Your task to perform on an android device: toggle translation in the chrome app Image 0: 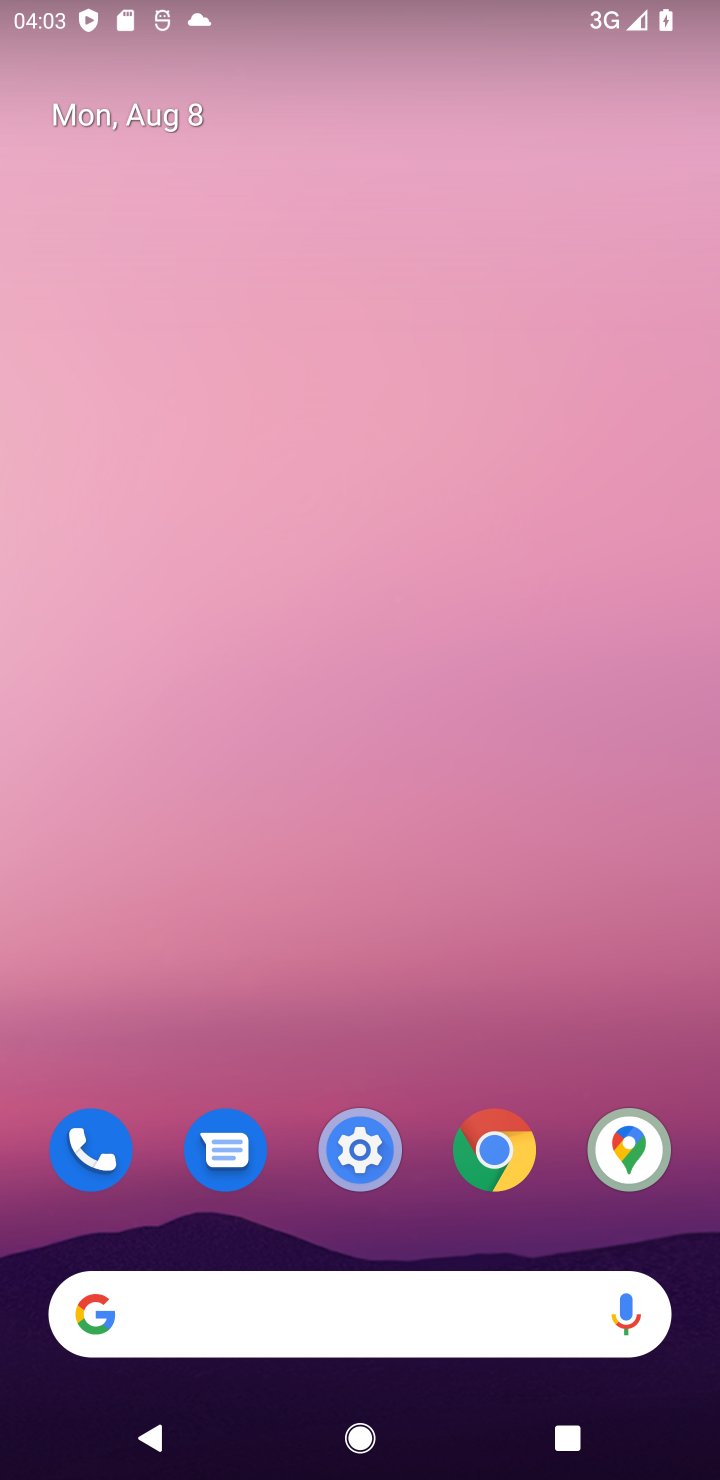
Step 0: click (518, 1159)
Your task to perform on an android device: toggle translation in the chrome app Image 1: 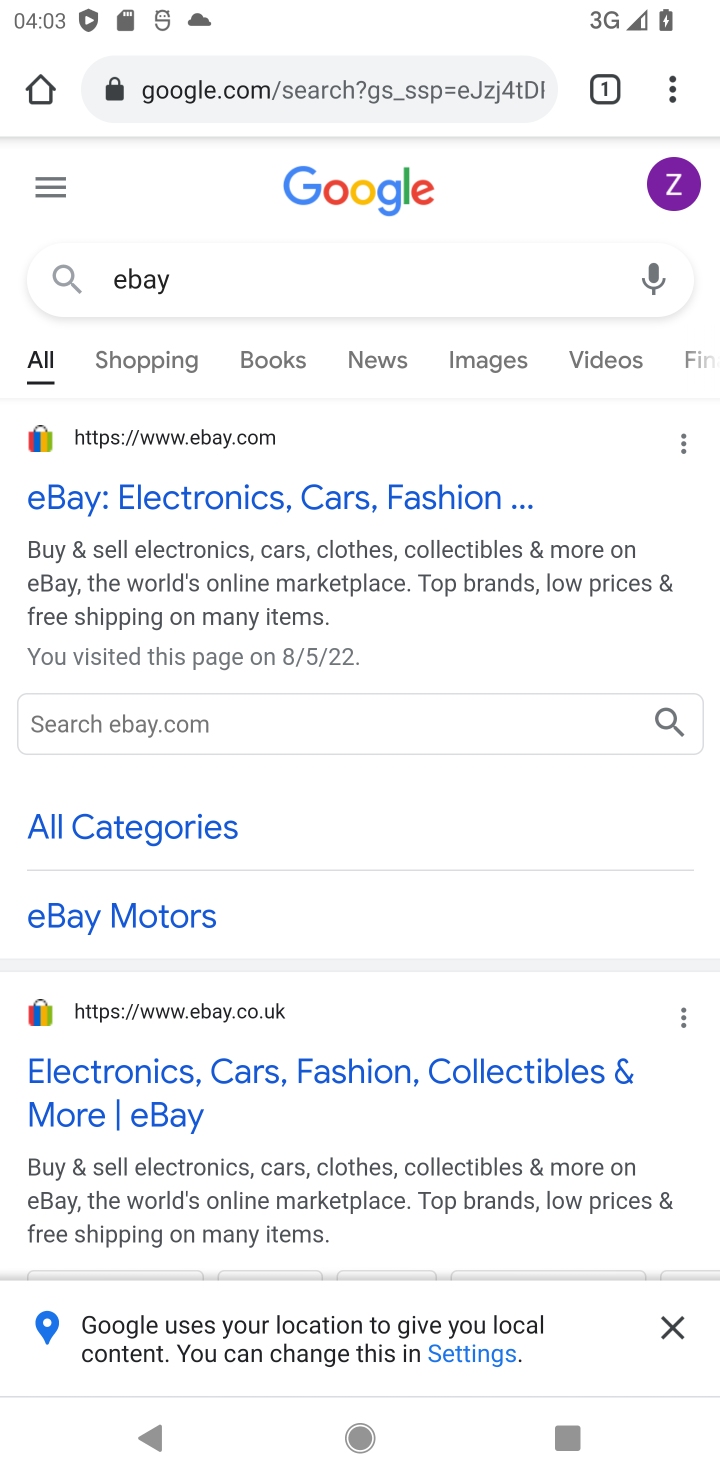
Step 1: click (678, 85)
Your task to perform on an android device: toggle translation in the chrome app Image 2: 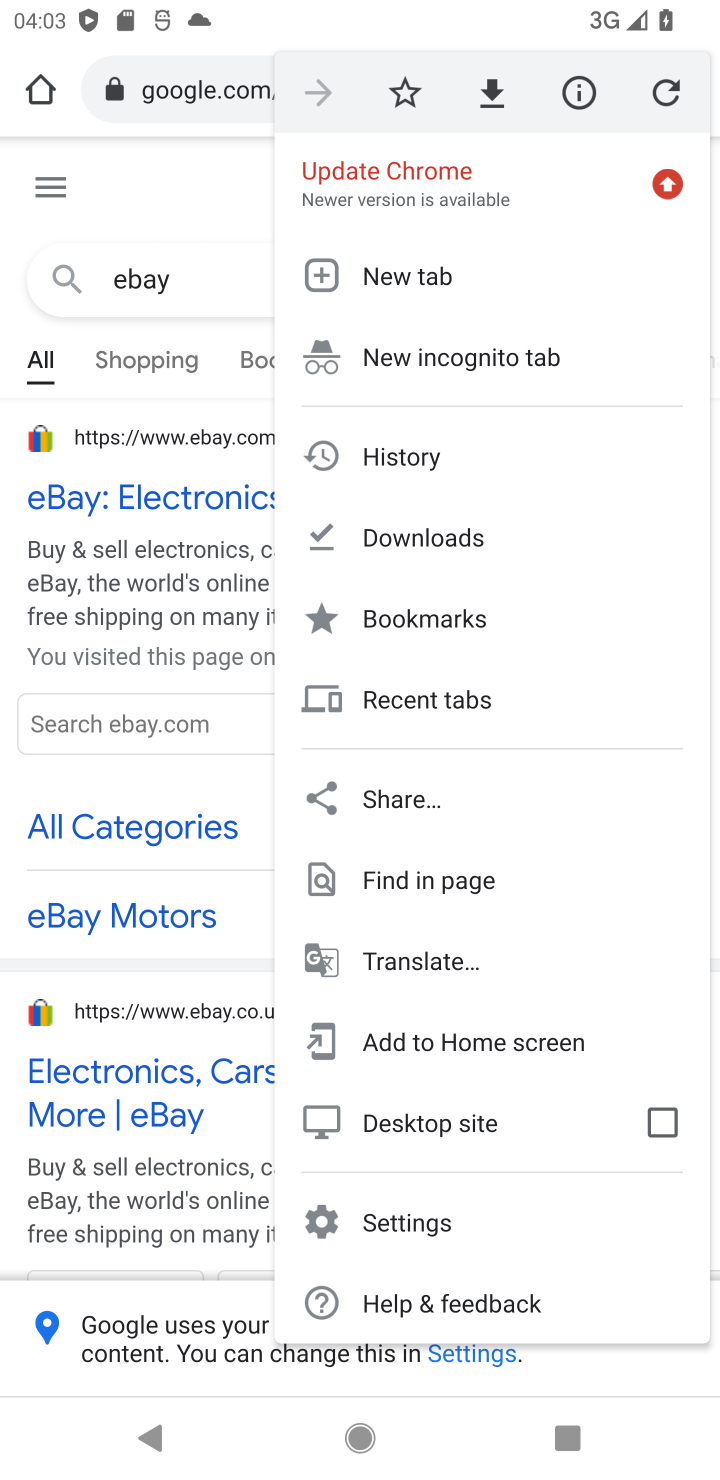
Step 2: click (423, 1228)
Your task to perform on an android device: toggle translation in the chrome app Image 3: 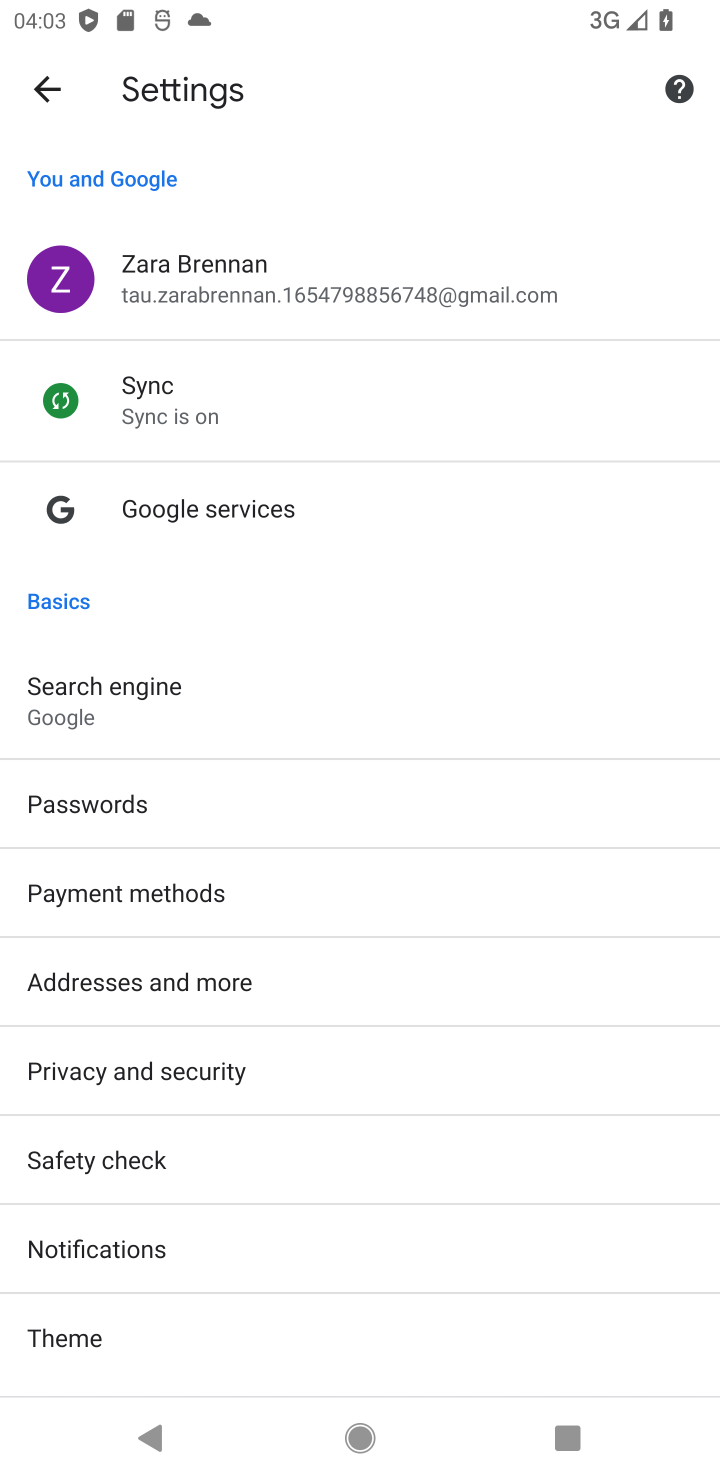
Step 3: click (45, 80)
Your task to perform on an android device: toggle translation in the chrome app Image 4: 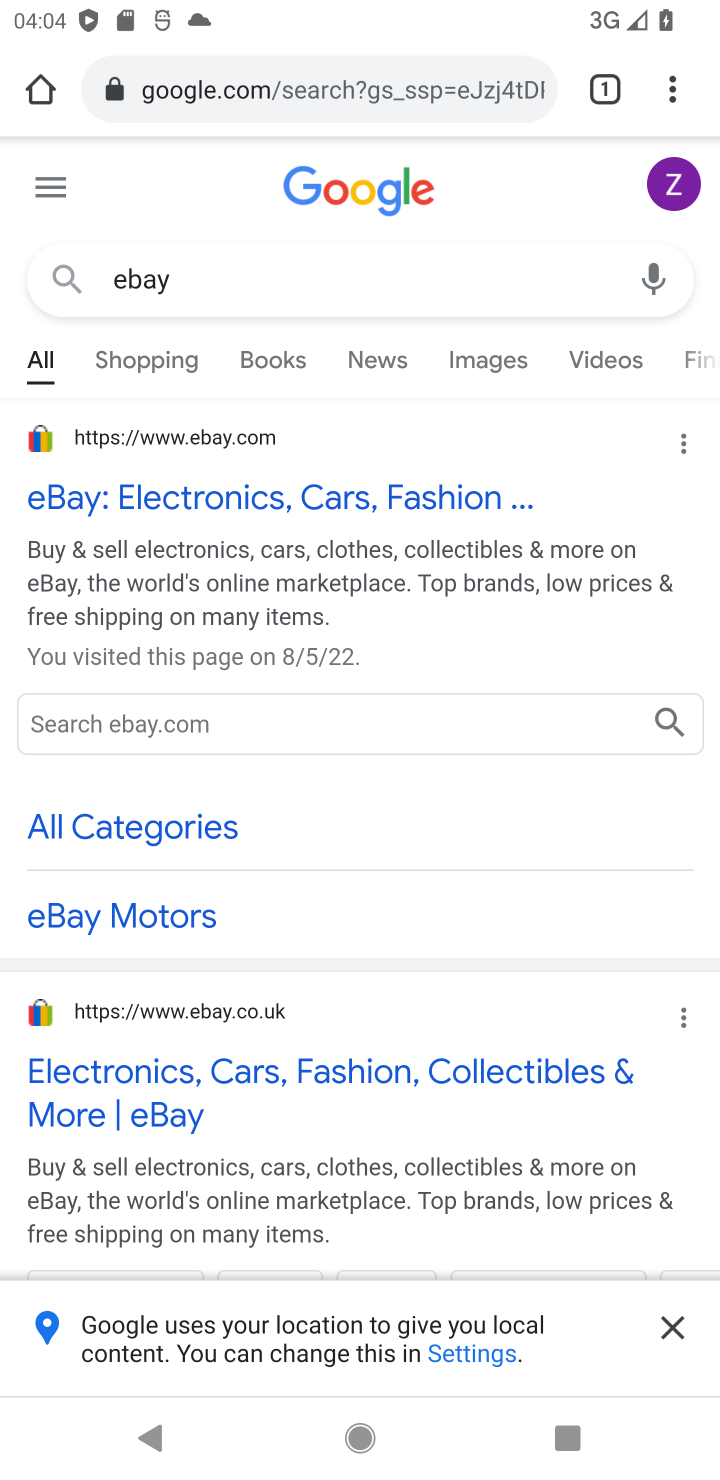
Step 4: click (678, 90)
Your task to perform on an android device: toggle translation in the chrome app Image 5: 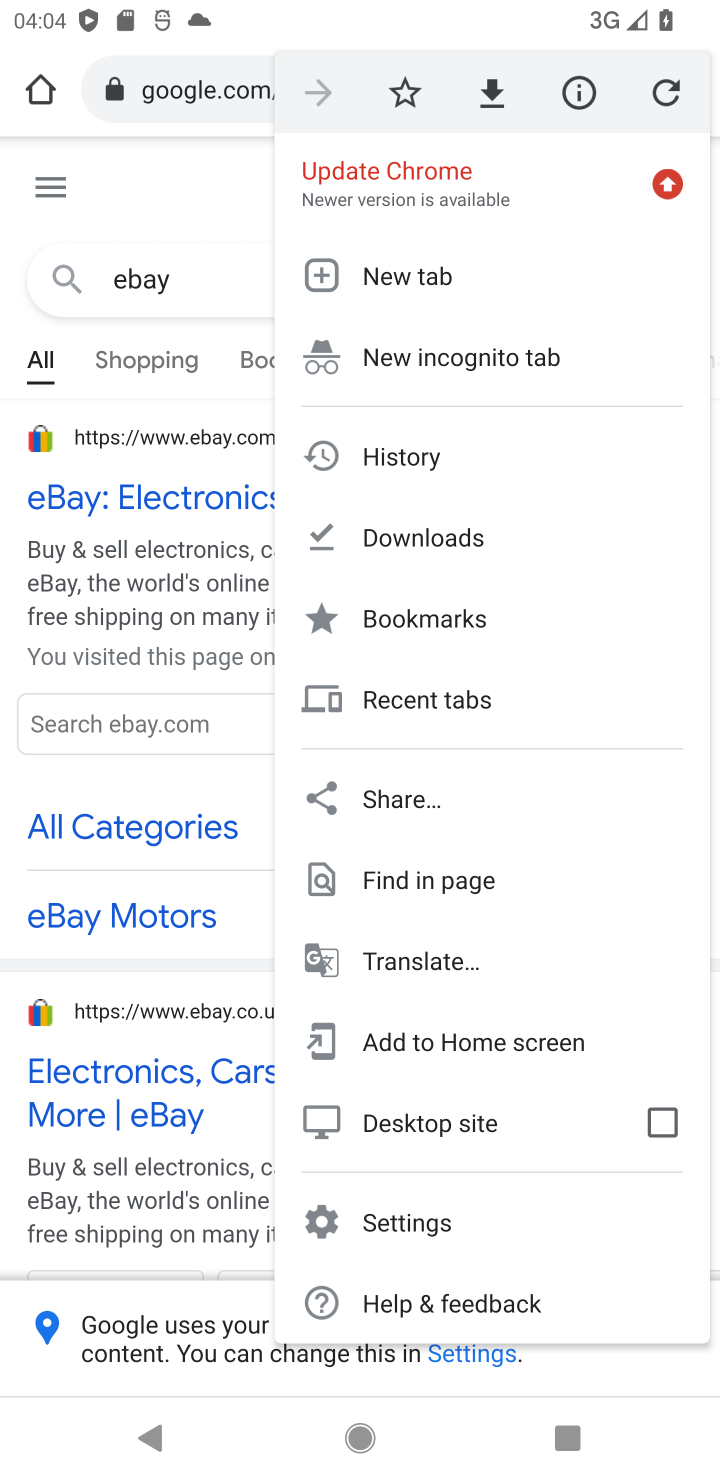
Step 5: click (394, 962)
Your task to perform on an android device: toggle translation in the chrome app Image 6: 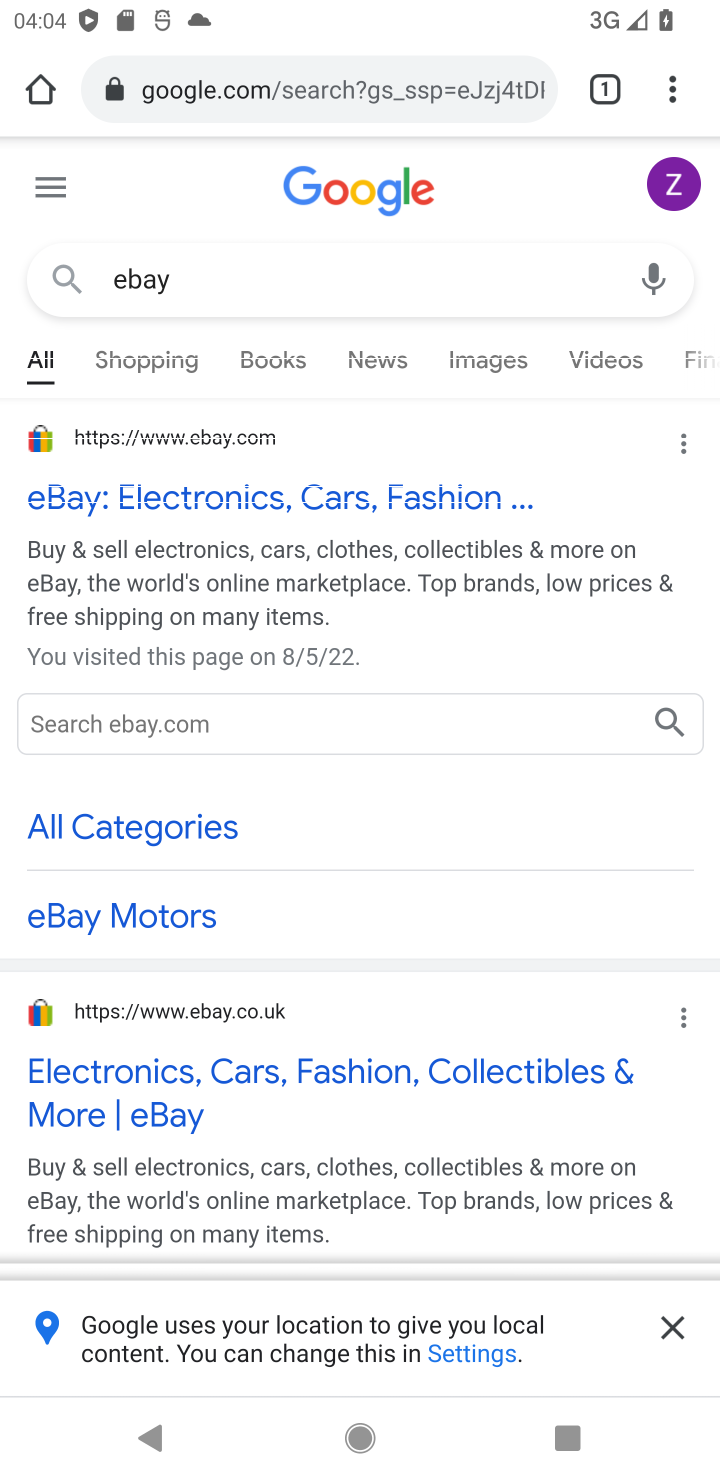
Step 6: task complete